Your task to perform on an android device: stop showing notifications on the lock screen Image 0: 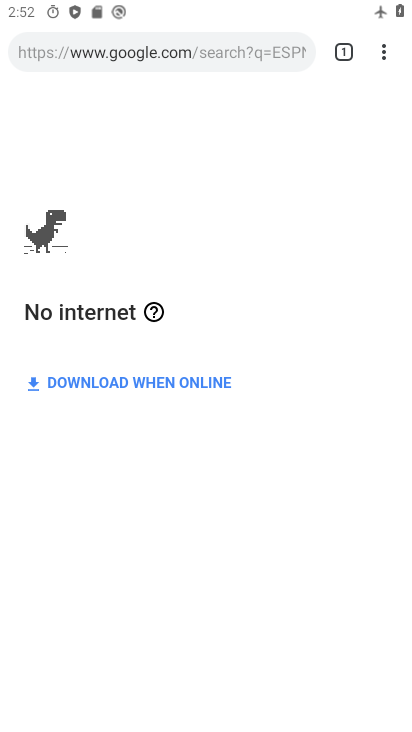
Step 0: press home button
Your task to perform on an android device: stop showing notifications on the lock screen Image 1: 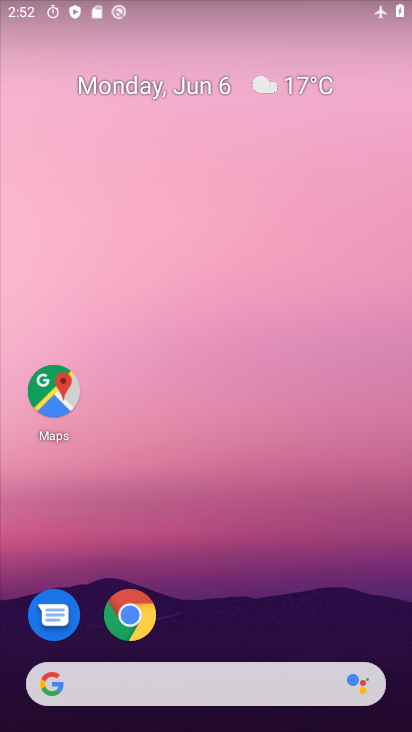
Step 1: drag from (199, 627) to (322, 120)
Your task to perform on an android device: stop showing notifications on the lock screen Image 2: 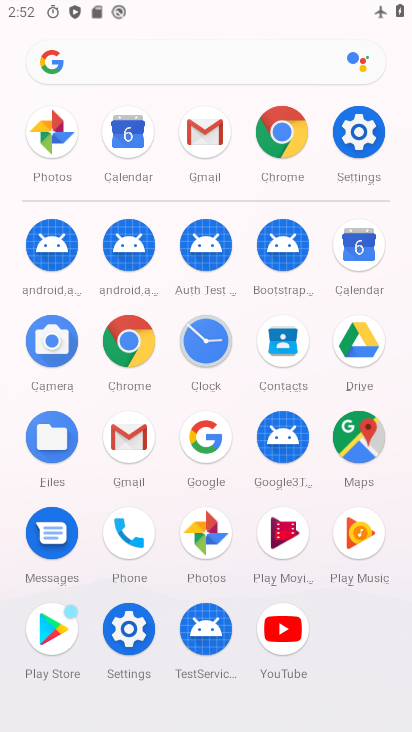
Step 2: click (370, 154)
Your task to perform on an android device: stop showing notifications on the lock screen Image 3: 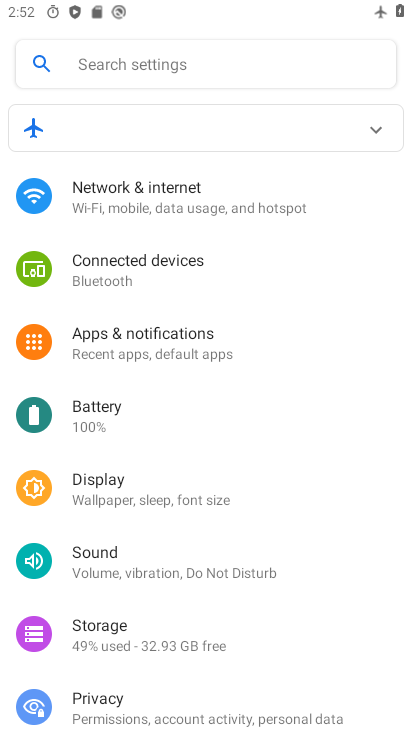
Step 3: click (165, 339)
Your task to perform on an android device: stop showing notifications on the lock screen Image 4: 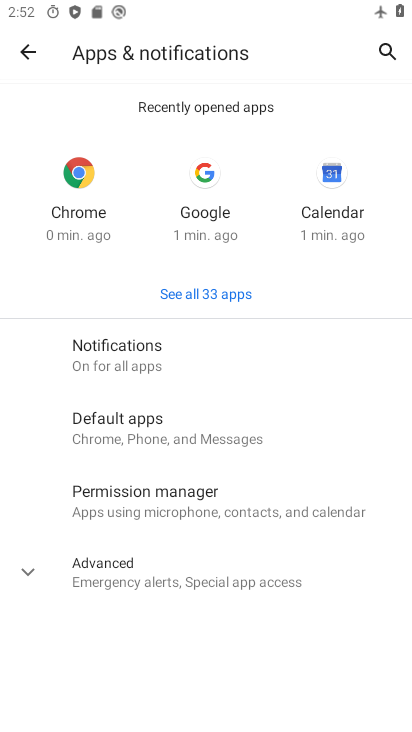
Step 4: click (165, 350)
Your task to perform on an android device: stop showing notifications on the lock screen Image 5: 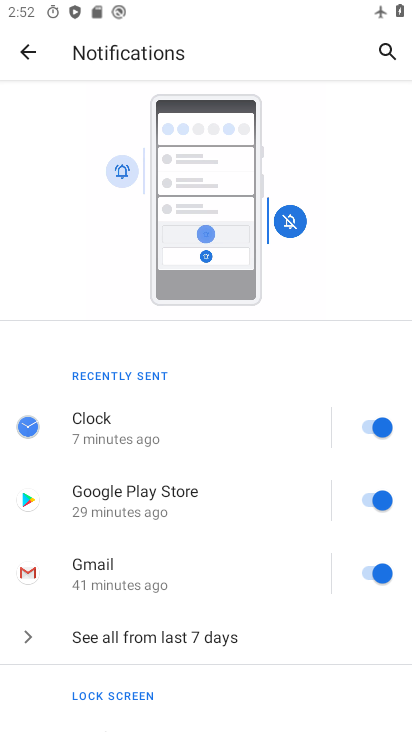
Step 5: drag from (169, 554) to (203, 278)
Your task to perform on an android device: stop showing notifications on the lock screen Image 6: 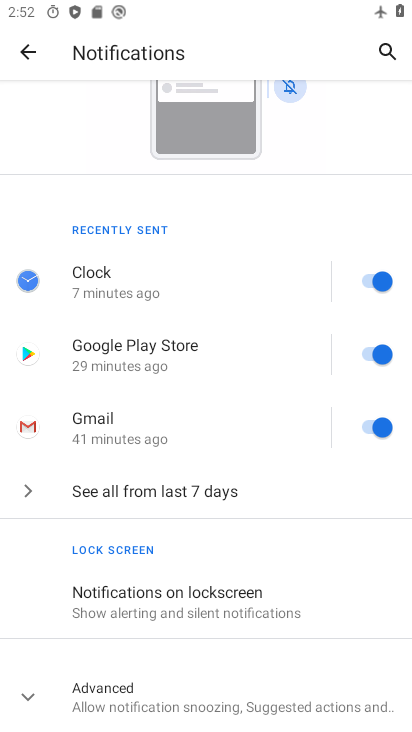
Step 6: click (170, 615)
Your task to perform on an android device: stop showing notifications on the lock screen Image 7: 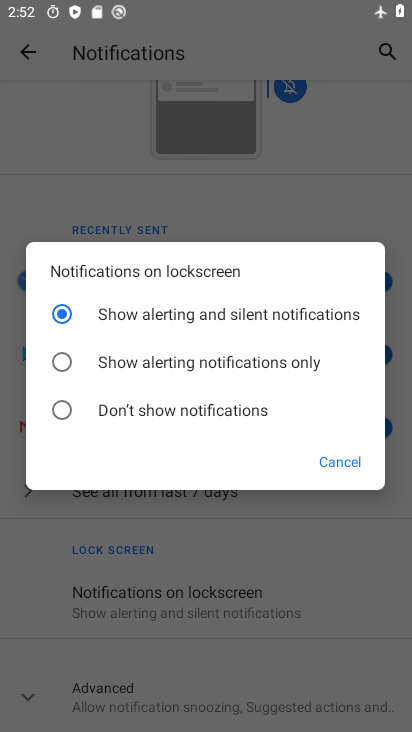
Step 7: click (132, 431)
Your task to perform on an android device: stop showing notifications on the lock screen Image 8: 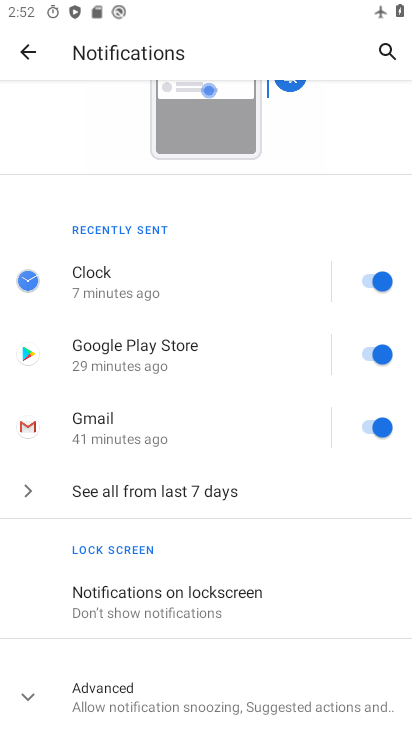
Step 8: task complete